Your task to perform on an android device: Open Google Chrome Image 0: 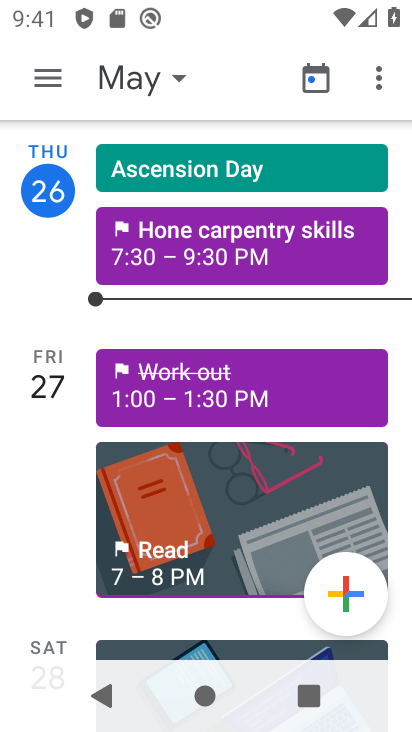
Step 0: press home button
Your task to perform on an android device: Open Google Chrome Image 1: 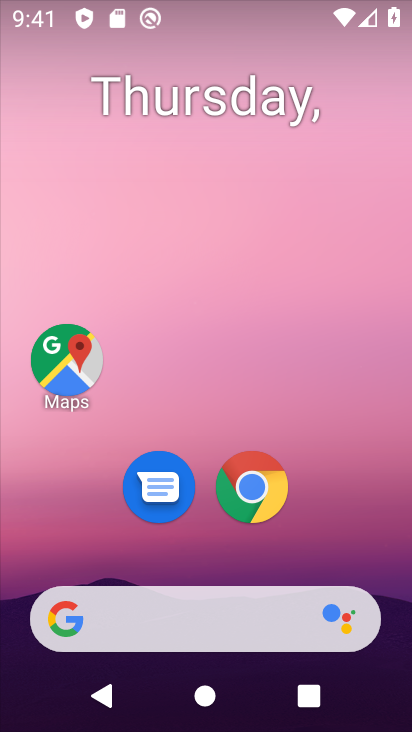
Step 1: click (269, 495)
Your task to perform on an android device: Open Google Chrome Image 2: 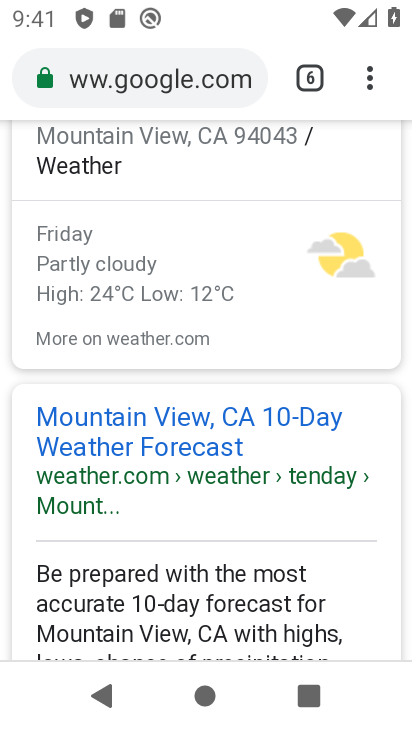
Step 2: task complete